Your task to perform on an android device: add a label to a message in the gmail app Image 0: 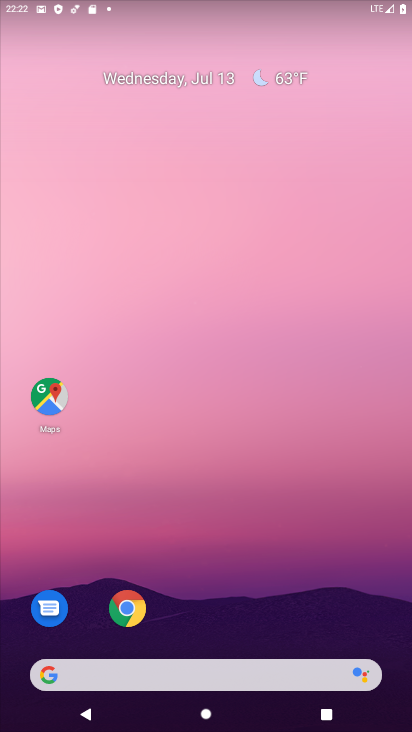
Step 0: drag from (176, 571) to (245, 0)
Your task to perform on an android device: add a label to a message in the gmail app Image 1: 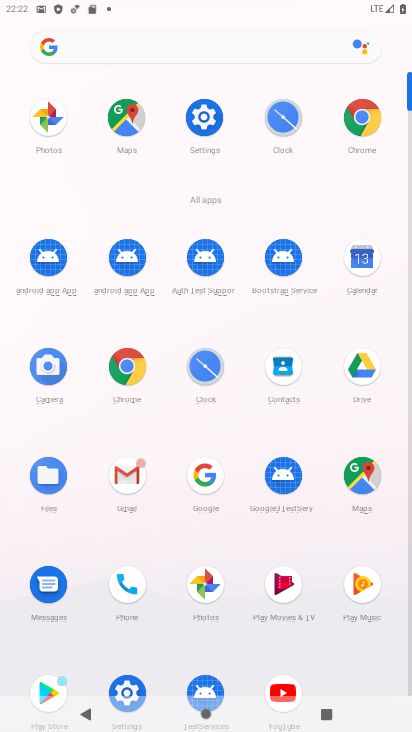
Step 1: click (123, 469)
Your task to perform on an android device: add a label to a message in the gmail app Image 2: 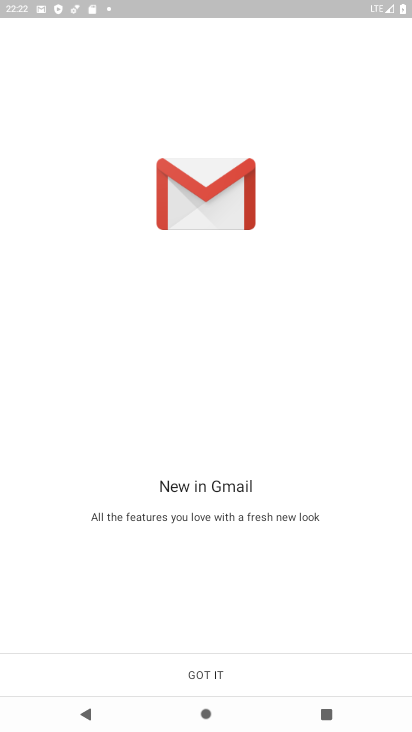
Step 2: click (243, 668)
Your task to perform on an android device: add a label to a message in the gmail app Image 3: 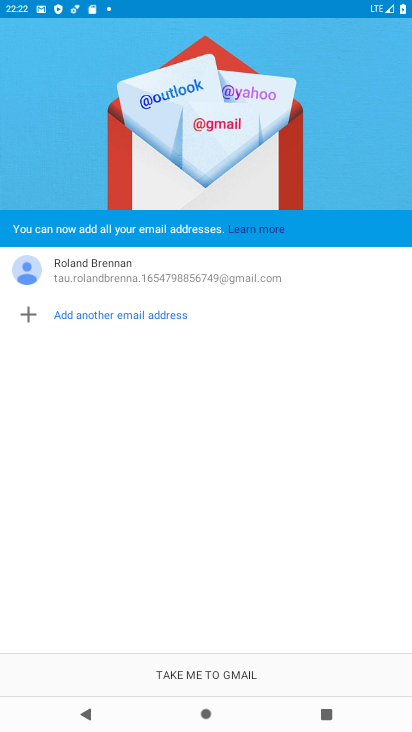
Step 3: click (244, 669)
Your task to perform on an android device: add a label to a message in the gmail app Image 4: 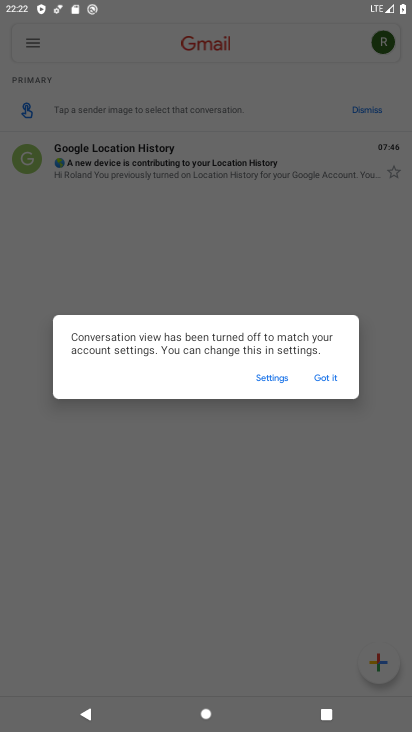
Step 4: click (321, 378)
Your task to perform on an android device: add a label to a message in the gmail app Image 5: 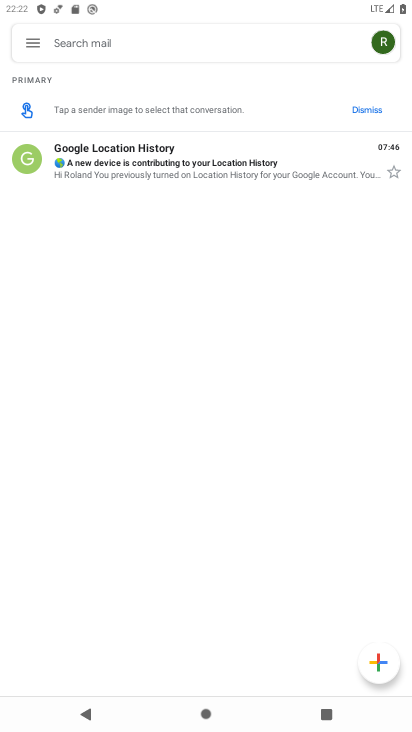
Step 5: click (23, 163)
Your task to perform on an android device: add a label to a message in the gmail app Image 6: 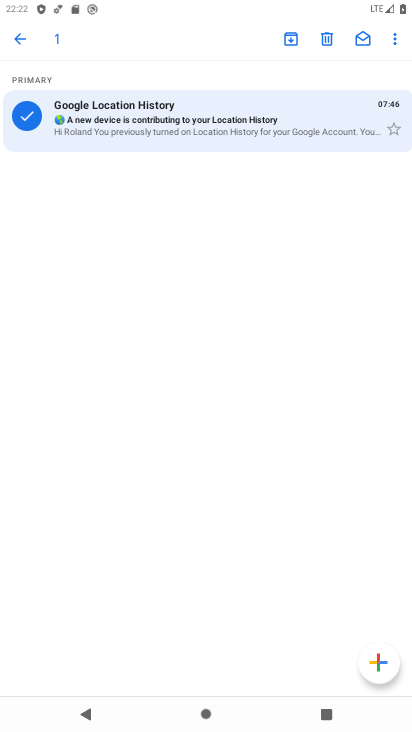
Step 6: click (394, 32)
Your task to perform on an android device: add a label to a message in the gmail app Image 7: 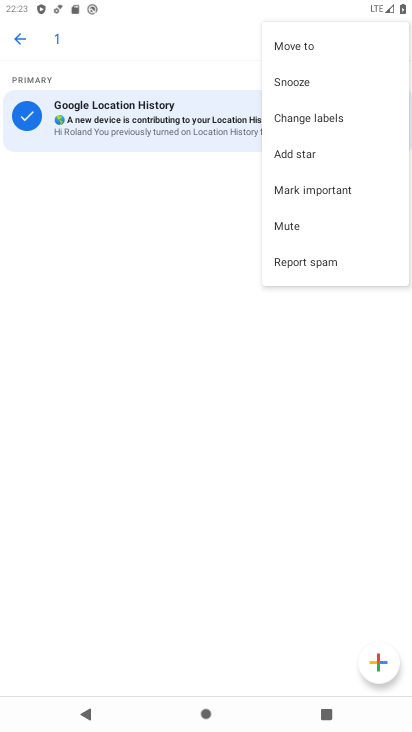
Step 7: click (324, 116)
Your task to perform on an android device: add a label to a message in the gmail app Image 8: 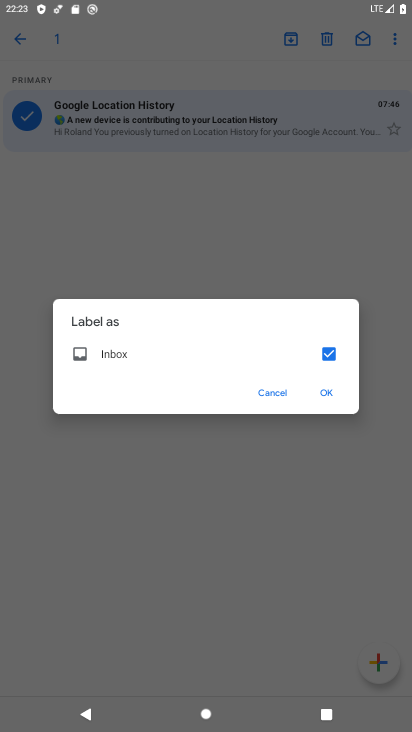
Step 8: click (316, 348)
Your task to perform on an android device: add a label to a message in the gmail app Image 9: 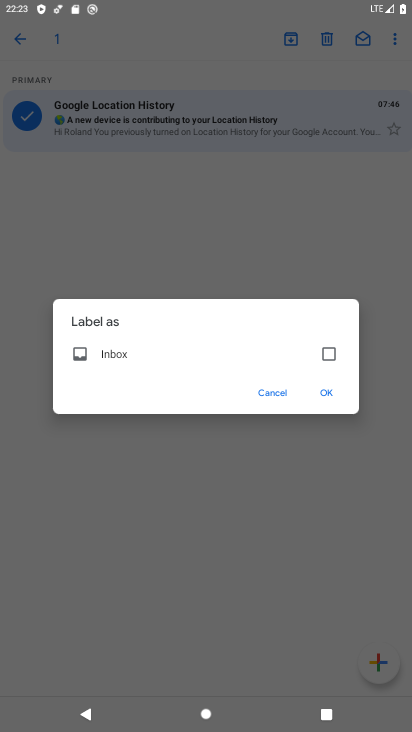
Step 9: click (323, 392)
Your task to perform on an android device: add a label to a message in the gmail app Image 10: 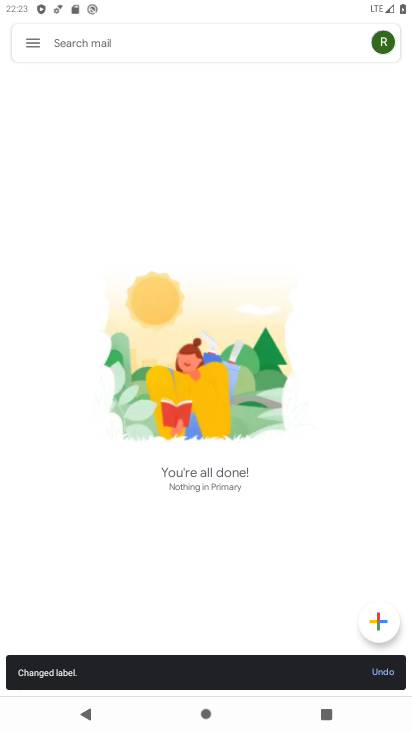
Step 10: task complete